Your task to perform on an android device: What's the weather today? Image 0: 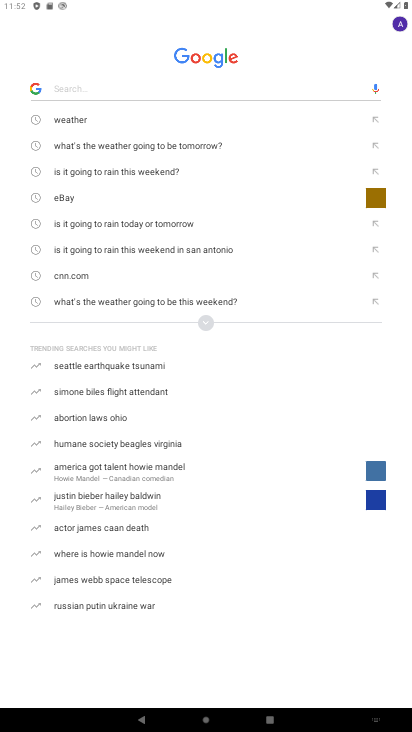
Step 0: drag from (276, 131) to (310, 200)
Your task to perform on an android device: What's the weather today? Image 1: 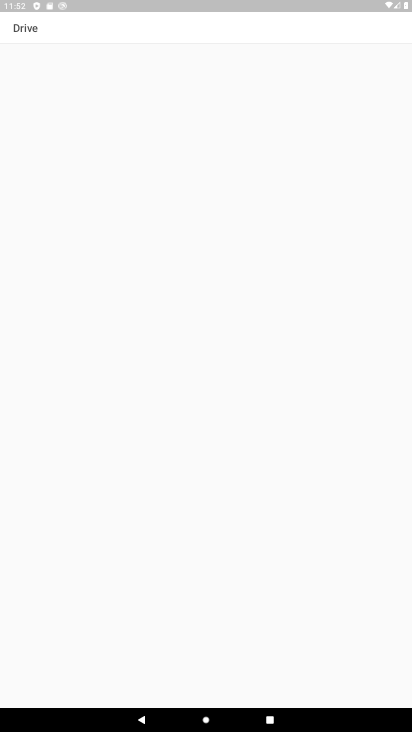
Step 1: press home button
Your task to perform on an android device: What's the weather today? Image 2: 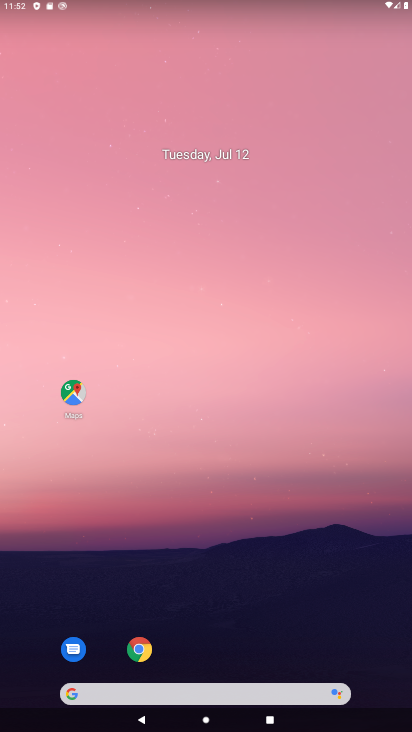
Step 2: click (221, 698)
Your task to perform on an android device: What's the weather today? Image 3: 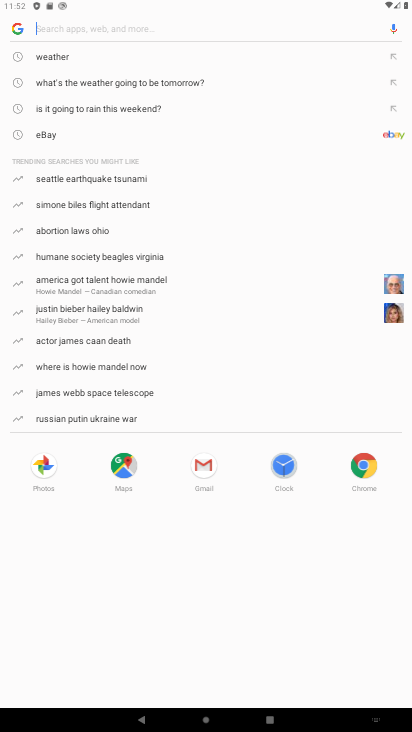
Step 3: click (61, 49)
Your task to perform on an android device: What's the weather today? Image 4: 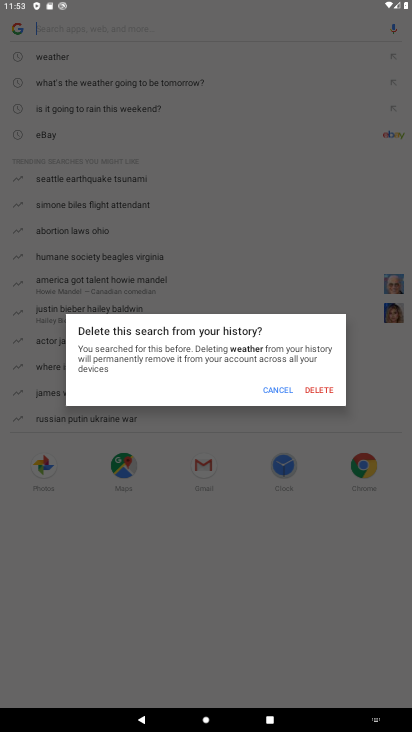
Step 4: click (275, 387)
Your task to perform on an android device: What's the weather today? Image 5: 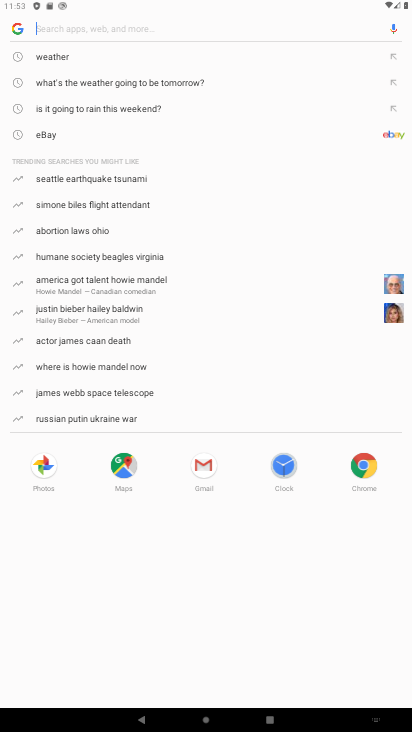
Step 5: click (91, 48)
Your task to perform on an android device: What's the weather today? Image 6: 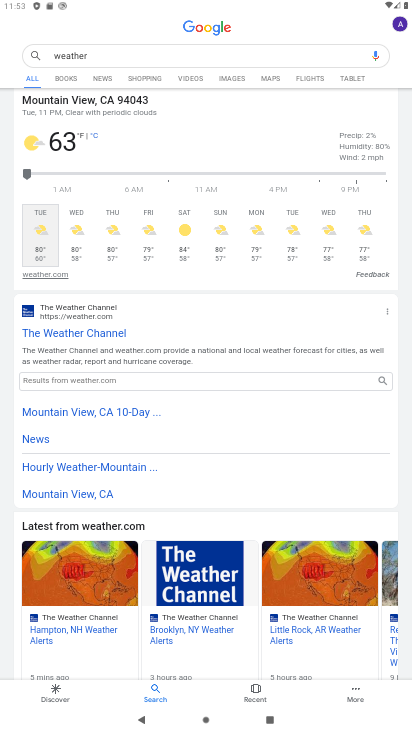
Step 6: task complete